Your task to perform on an android device: Open settings on Google Maps Image 0: 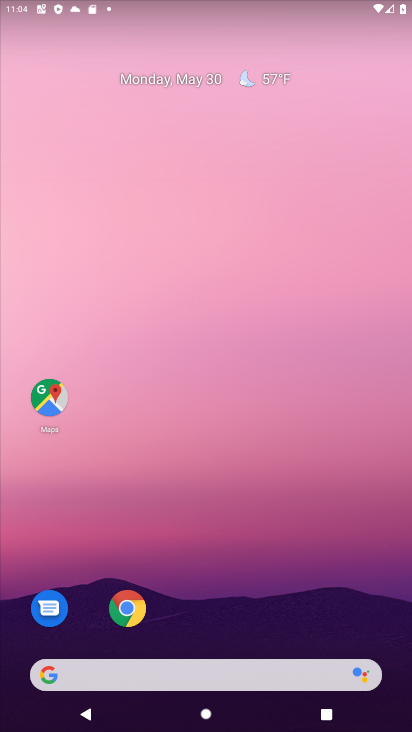
Step 0: drag from (284, 589) to (203, 0)
Your task to perform on an android device: Open settings on Google Maps Image 1: 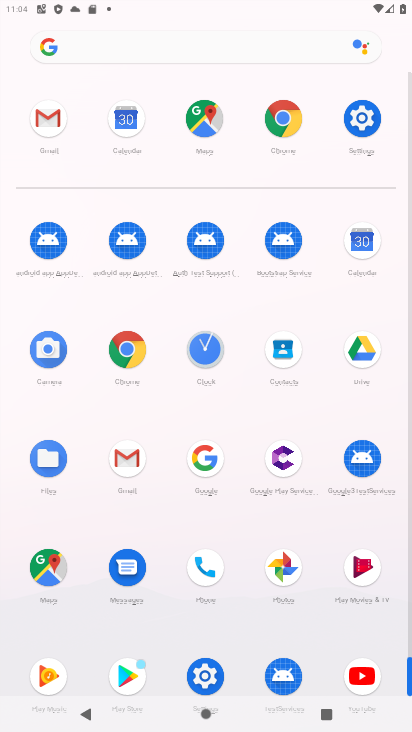
Step 1: click (49, 566)
Your task to perform on an android device: Open settings on Google Maps Image 2: 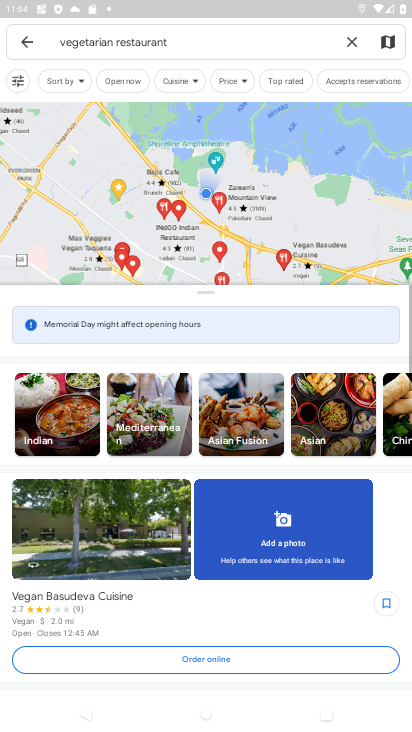
Step 2: click (27, 42)
Your task to perform on an android device: Open settings on Google Maps Image 3: 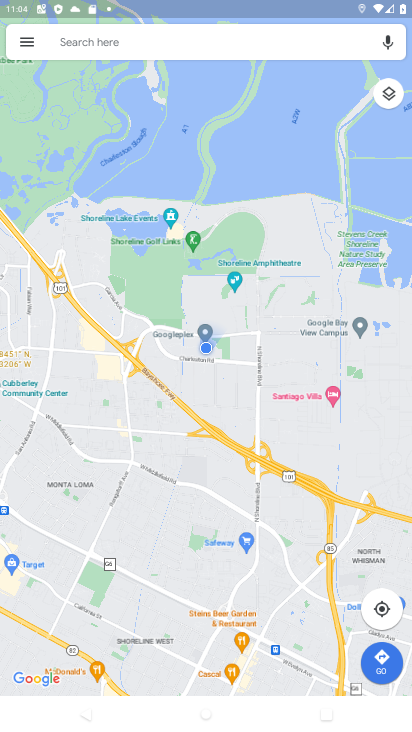
Step 3: click (26, 41)
Your task to perform on an android device: Open settings on Google Maps Image 4: 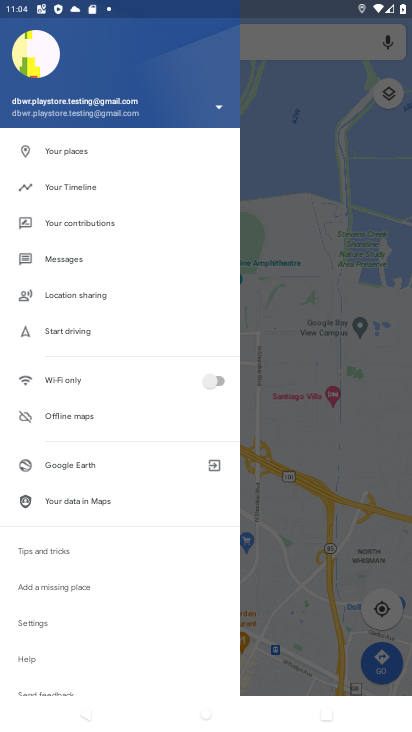
Step 4: click (45, 618)
Your task to perform on an android device: Open settings on Google Maps Image 5: 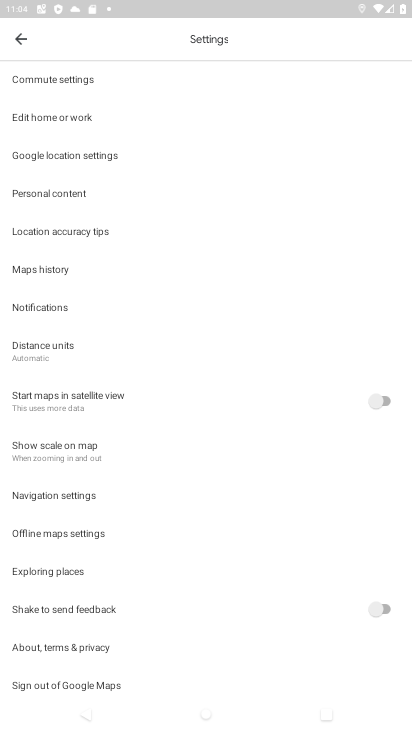
Step 5: task complete